Your task to perform on an android device: Open Google Chrome Image 0: 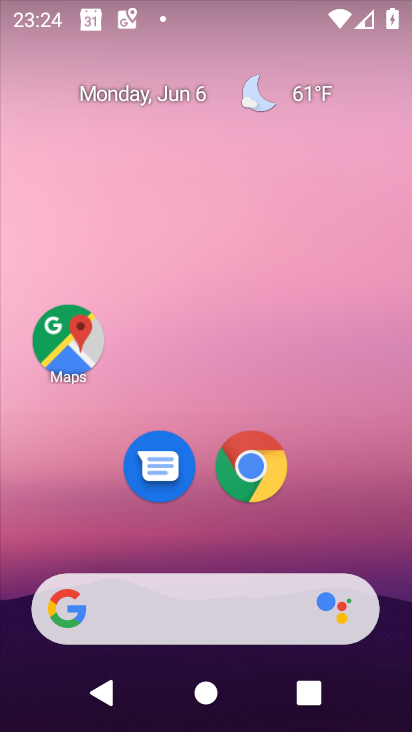
Step 0: press home button
Your task to perform on an android device: Open Google Chrome Image 1: 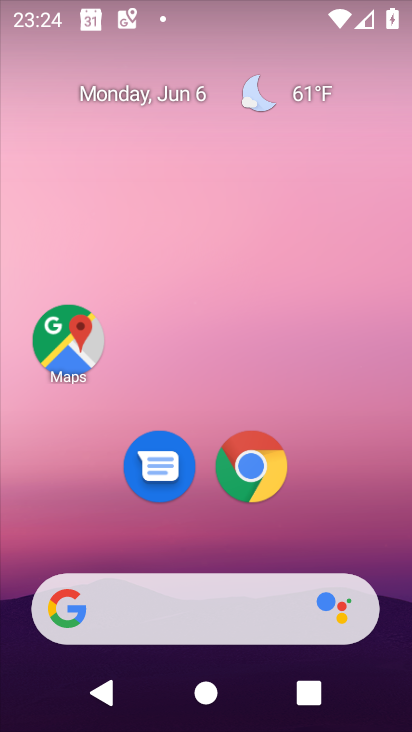
Step 1: click (262, 449)
Your task to perform on an android device: Open Google Chrome Image 2: 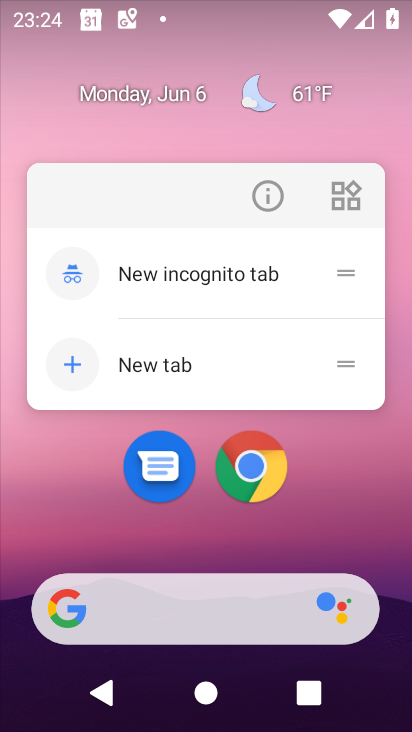
Step 2: click (229, 464)
Your task to perform on an android device: Open Google Chrome Image 3: 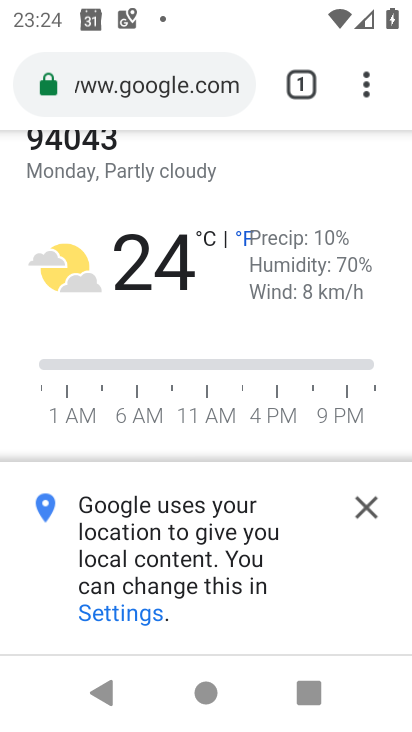
Step 3: task complete